Your task to perform on an android device: Go to settings Image 0: 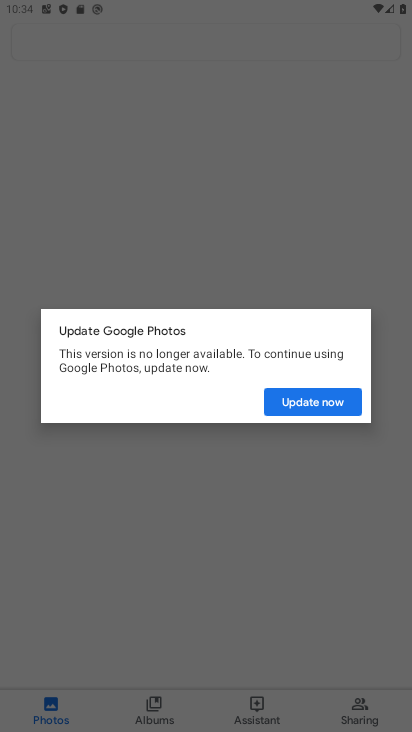
Step 0: press home button
Your task to perform on an android device: Go to settings Image 1: 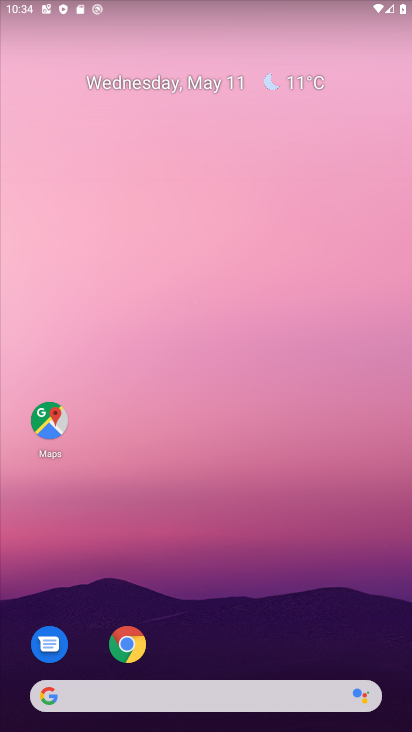
Step 1: drag from (292, 599) to (131, 2)
Your task to perform on an android device: Go to settings Image 2: 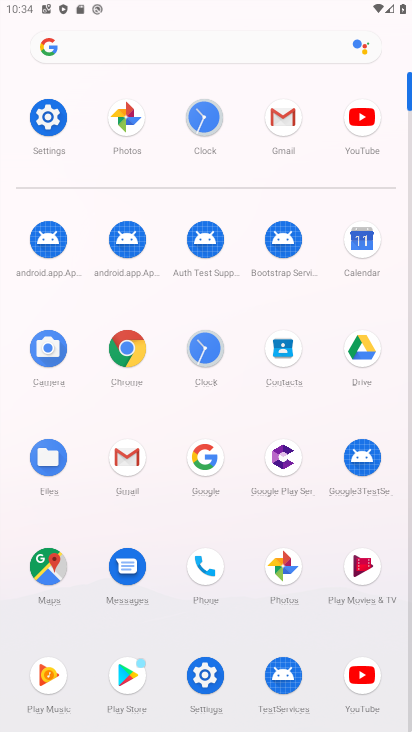
Step 2: click (47, 128)
Your task to perform on an android device: Go to settings Image 3: 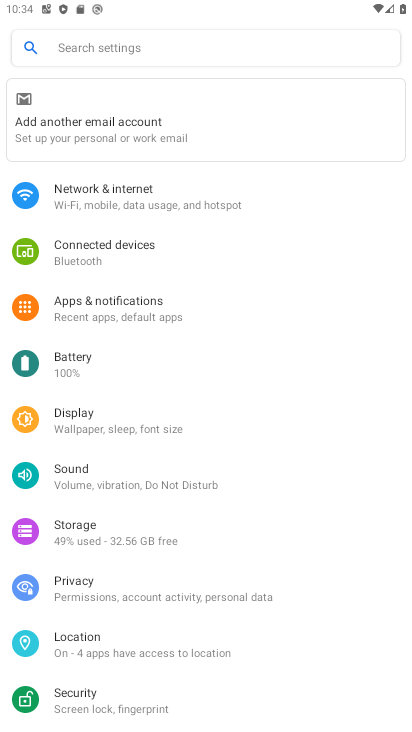
Step 3: task complete